Your task to perform on an android device: Search for Italian restaurants on Maps Image 0: 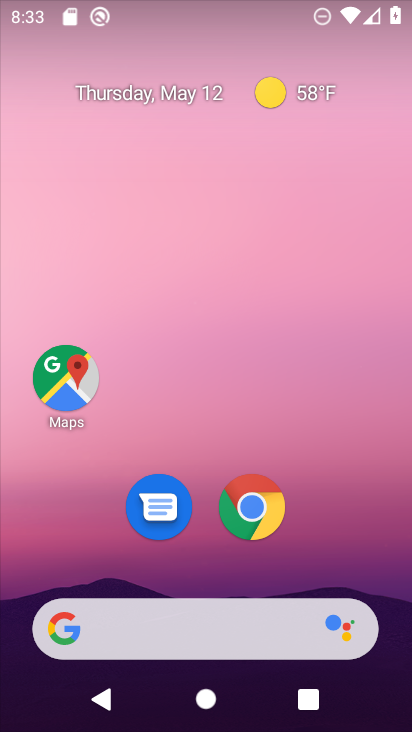
Step 0: click (74, 371)
Your task to perform on an android device: Search for Italian restaurants on Maps Image 1: 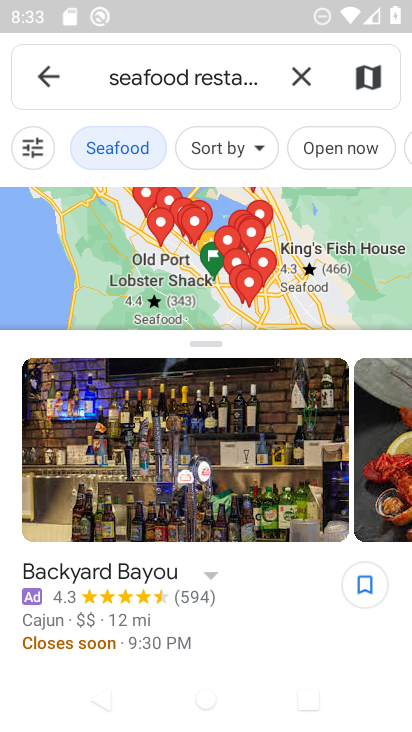
Step 1: click (297, 77)
Your task to perform on an android device: Search for Italian restaurants on Maps Image 2: 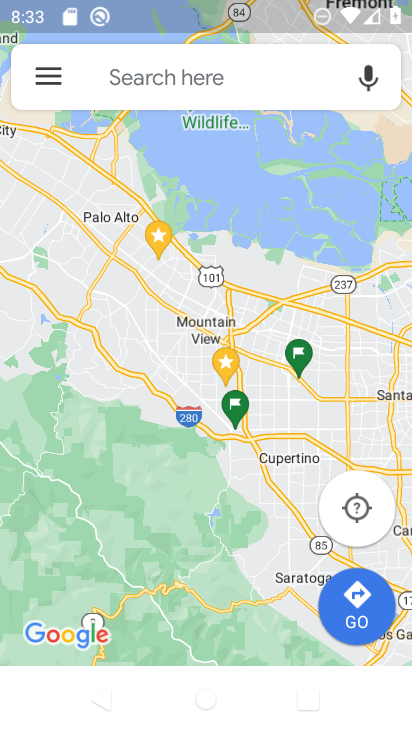
Step 2: click (175, 72)
Your task to perform on an android device: Search for Italian restaurants on Maps Image 3: 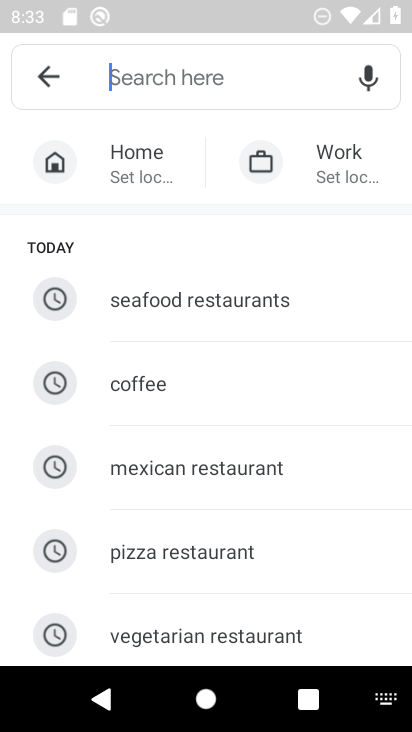
Step 3: type "Italian restaurants"
Your task to perform on an android device: Search for Italian restaurants on Maps Image 4: 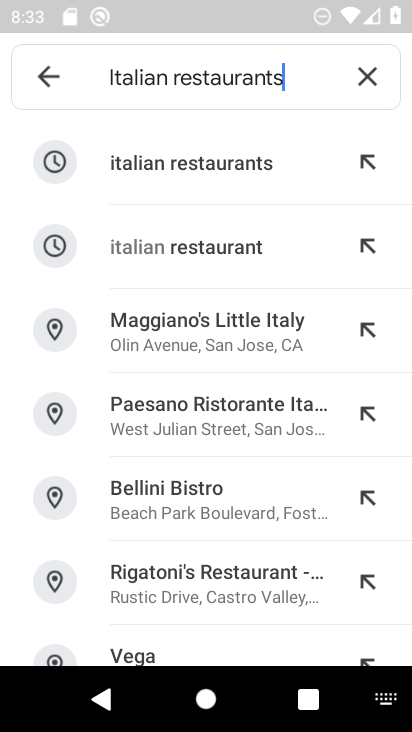
Step 4: click (186, 171)
Your task to perform on an android device: Search for Italian restaurants on Maps Image 5: 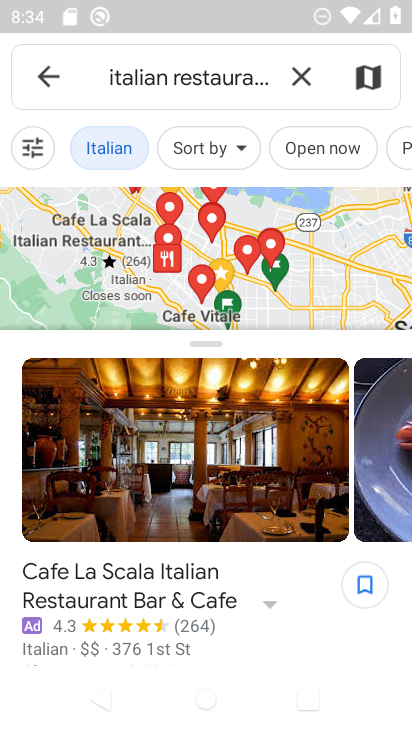
Step 5: task complete